Your task to perform on an android device: Show me popular videos on Youtube Image 0: 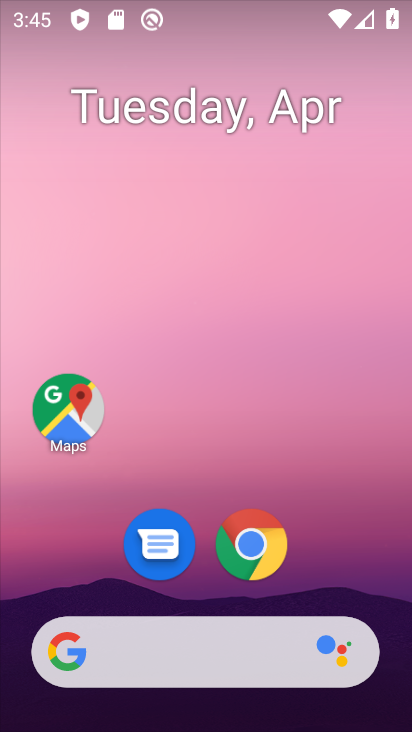
Step 0: drag from (293, 360) to (348, 9)
Your task to perform on an android device: Show me popular videos on Youtube Image 1: 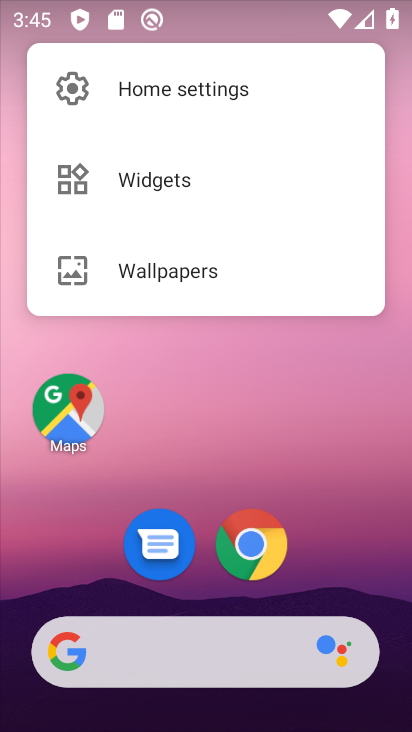
Step 1: drag from (213, 589) to (335, 2)
Your task to perform on an android device: Show me popular videos on Youtube Image 2: 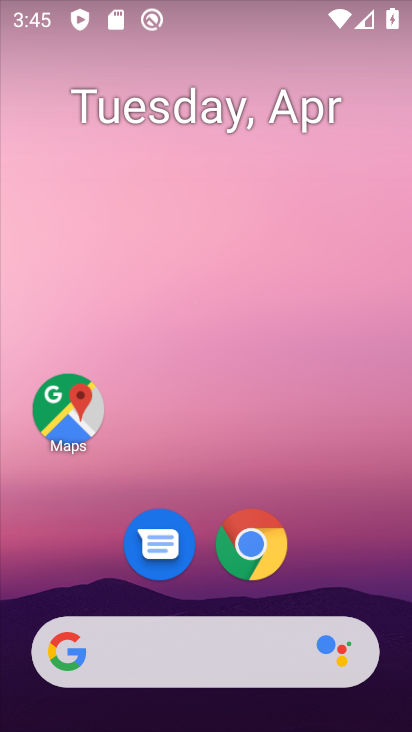
Step 2: drag from (213, 598) to (297, 39)
Your task to perform on an android device: Show me popular videos on Youtube Image 3: 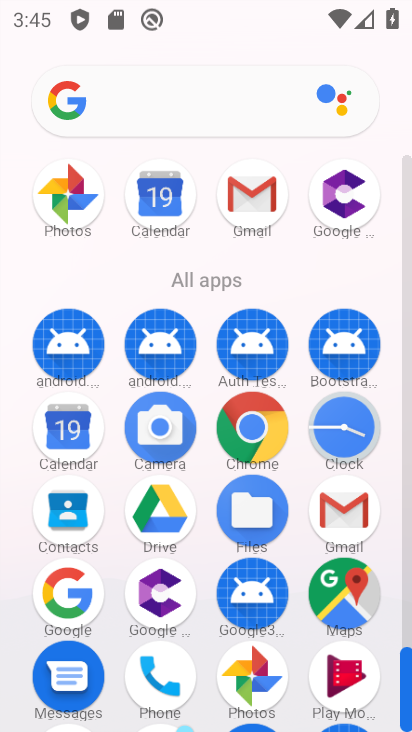
Step 3: drag from (209, 586) to (321, 79)
Your task to perform on an android device: Show me popular videos on Youtube Image 4: 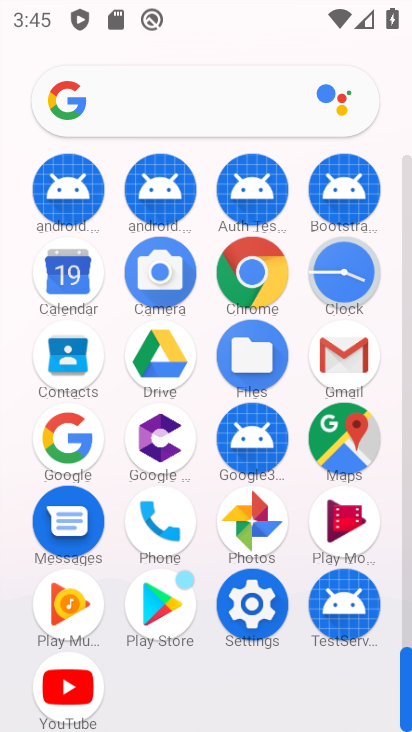
Step 4: click (236, 278)
Your task to perform on an android device: Show me popular videos on Youtube Image 5: 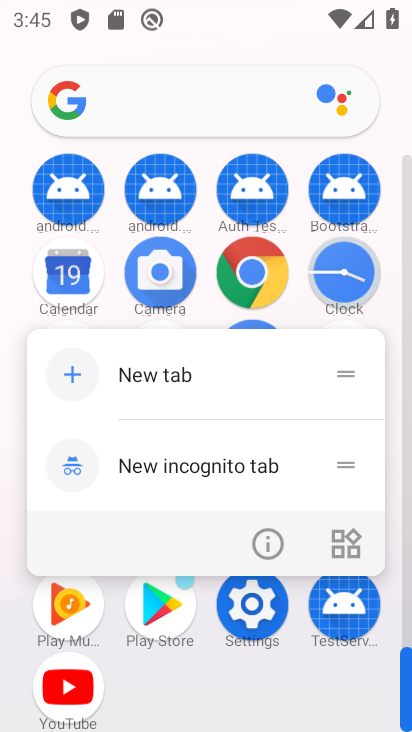
Step 5: click (71, 688)
Your task to perform on an android device: Show me popular videos on Youtube Image 6: 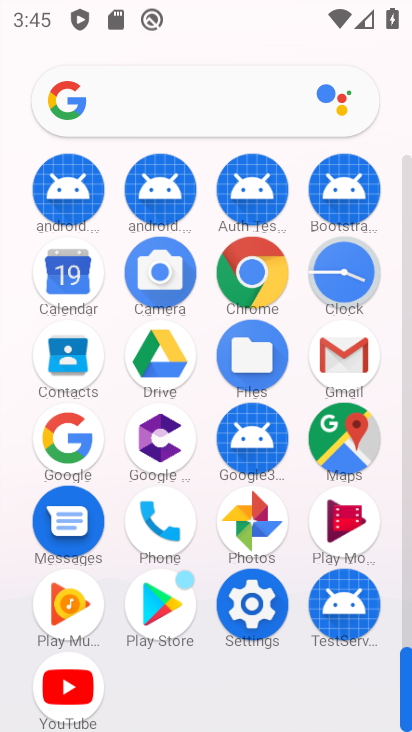
Step 6: click (70, 689)
Your task to perform on an android device: Show me popular videos on Youtube Image 7: 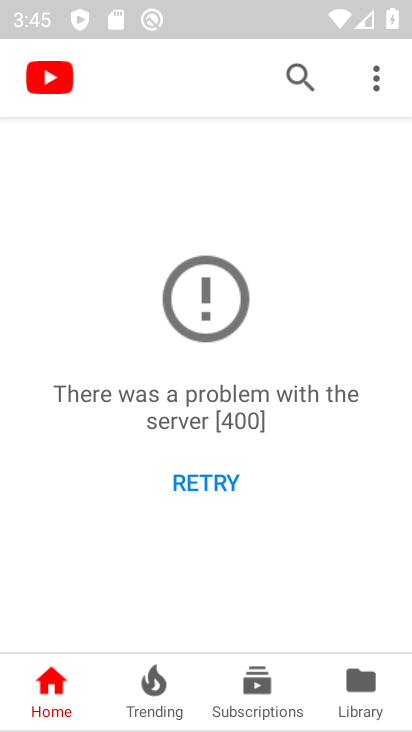
Step 7: click (144, 690)
Your task to perform on an android device: Show me popular videos on Youtube Image 8: 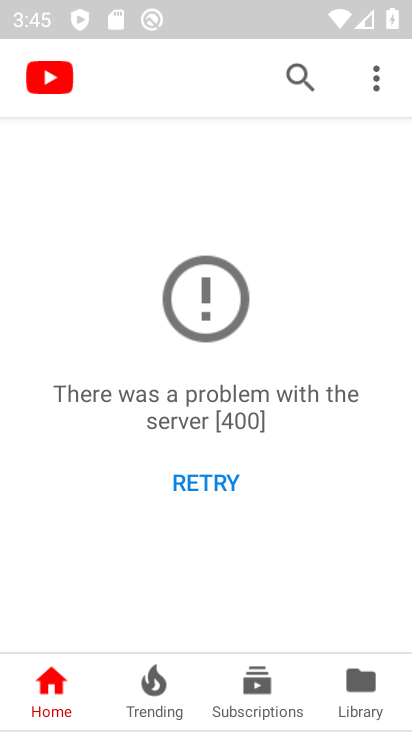
Step 8: click (152, 684)
Your task to perform on an android device: Show me popular videos on Youtube Image 9: 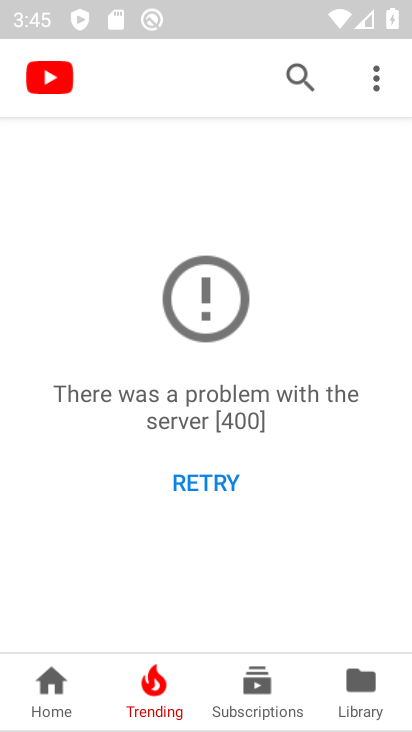
Step 9: task complete